Your task to perform on an android device: change notification settings in the gmail app Image 0: 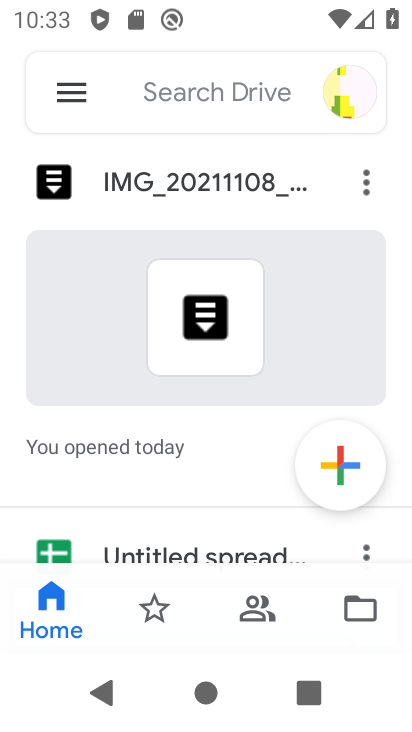
Step 0: press home button
Your task to perform on an android device: change notification settings in the gmail app Image 1: 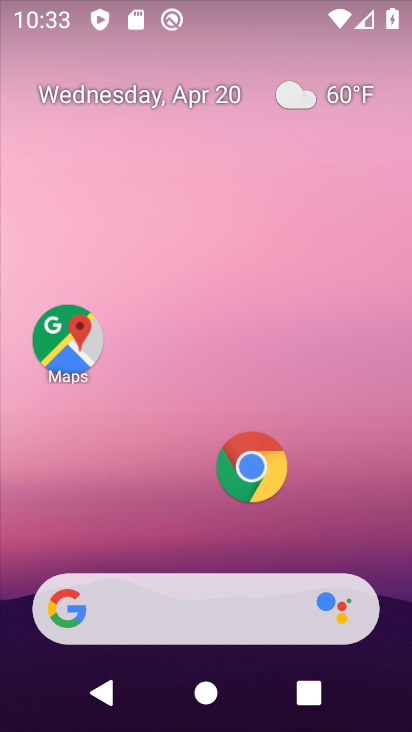
Step 1: drag from (337, 522) to (248, 30)
Your task to perform on an android device: change notification settings in the gmail app Image 2: 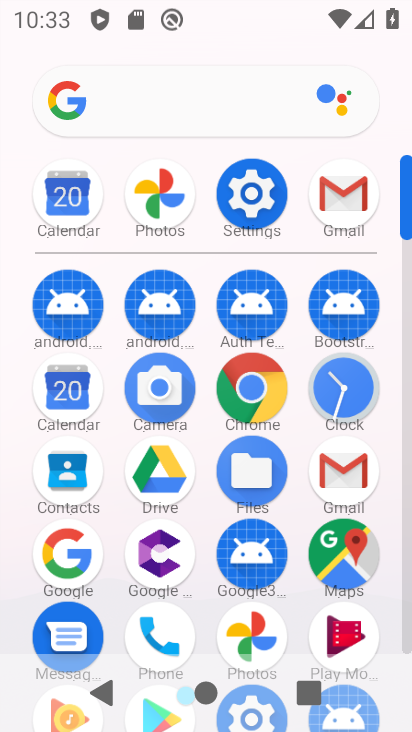
Step 2: click (347, 480)
Your task to perform on an android device: change notification settings in the gmail app Image 3: 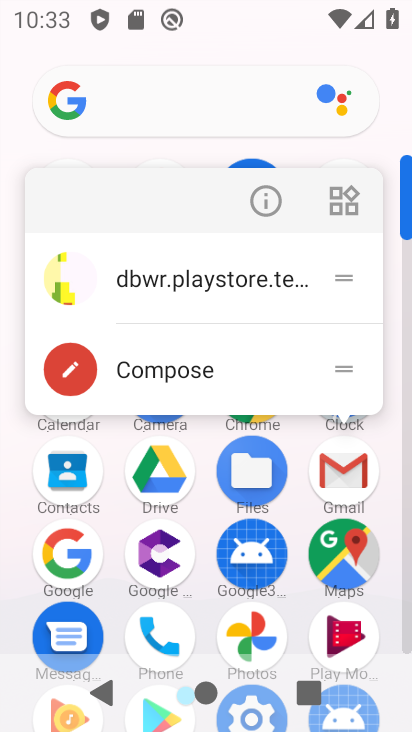
Step 3: click (347, 479)
Your task to perform on an android device: change notification settings in the gmail app Image 4: 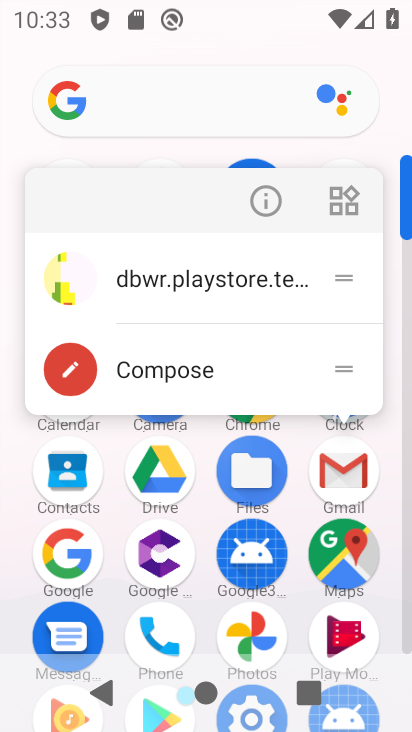
Step 4: click (347, 479)
Your task to perform on an android device: change notification settings in the gmail app Image 5: 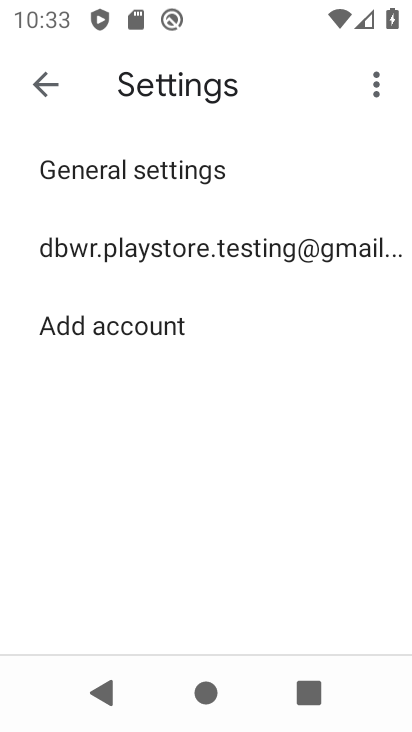
Step 5: click (163, 246)
Your task to perform on an android device: change notification settings in the gmail app Image 6: 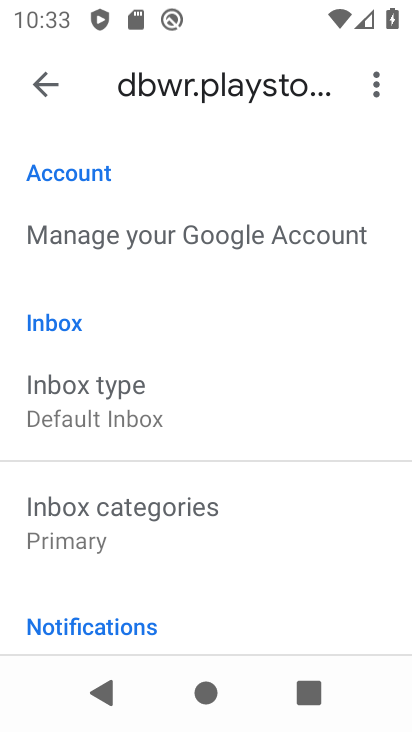
Step 6: drag from (241, 531) to (234, 446)
Your task to perform on an android device: change notification settings in the gmail app Image 7: 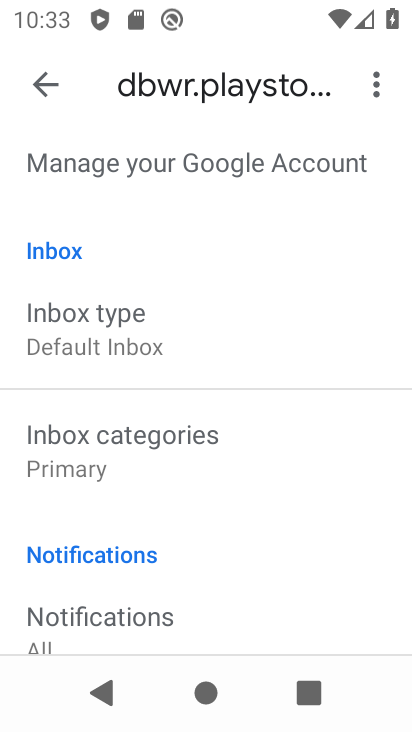
Step 7: drag from (258, 571) to (249, 464)
Your task to perform on an android device: change notification settings in the gmail app Image 8: 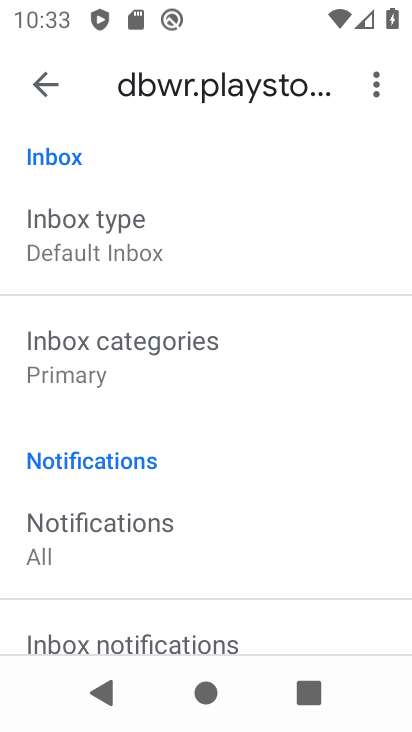
Step 8: drag from (275, 582) to (256, 500)
Your task to perform on an android device: change notification settings in the gmail app Image 9: 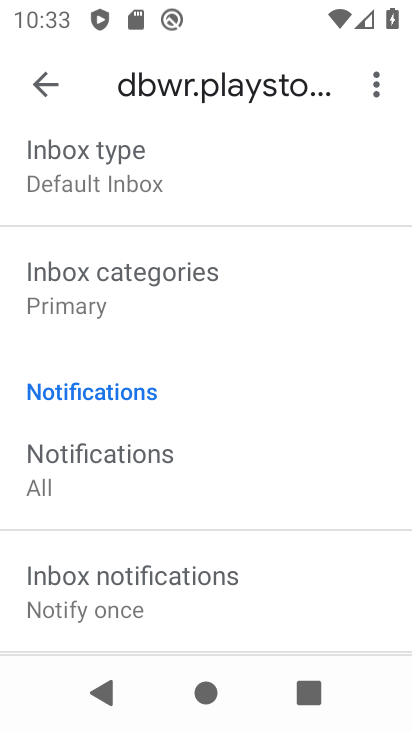
Step 9: drag from (275, 584) to (256, 498)
Your task to perform on an android device: change notification settings in the gmail app Image 10: 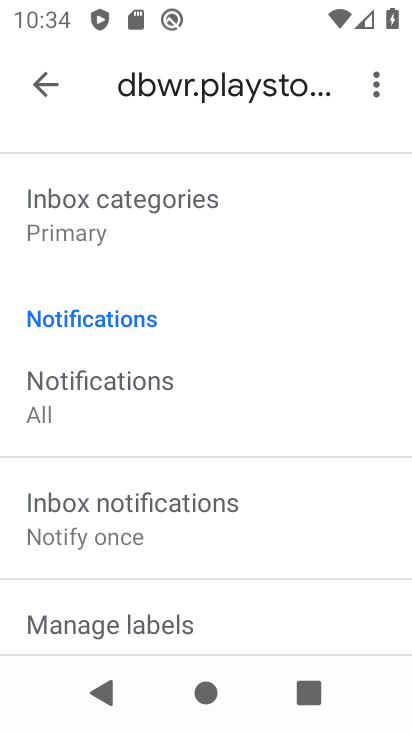
Step 10: drag from (267, 561) to (262, 477)
Your task to perform on an android device: change notification settings in the gmail app Image 11: 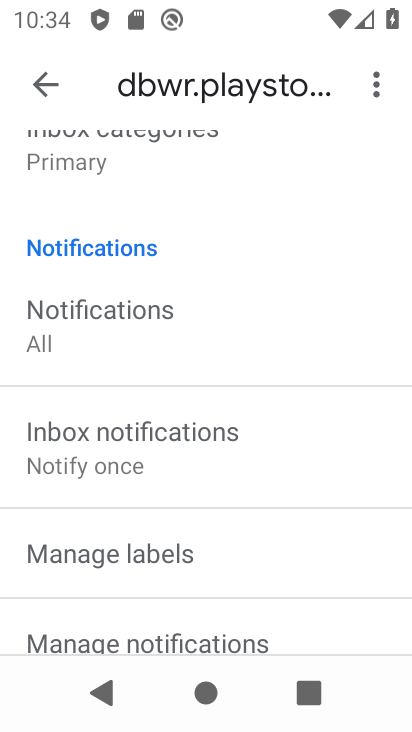
Step 11: drag from (271, 548) to (242, 409)
Your task to perform on an android device: change notification settings in the gmail app Image 12: 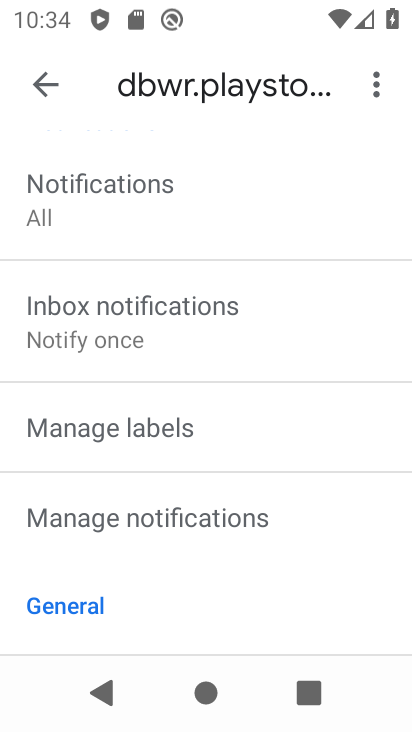
Step 12: click (261, 530)
Your task to perform on an android device: change notification settings in the gmail app Image 13: 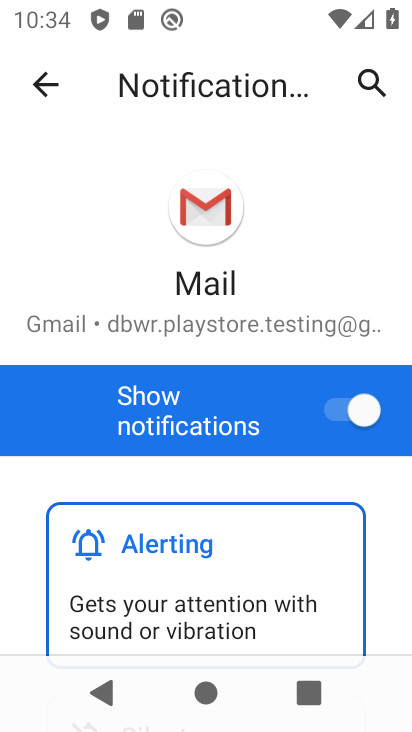
Step 13: click (348, 411)
Your task to perform on an android device: change notification settings in the gmail app Image 14: 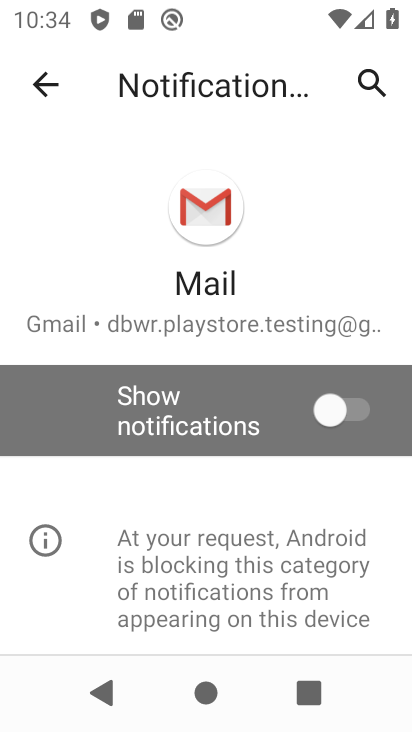
Step 14: task complete